Your task to perform on an android device: Go to network settings Image 0: 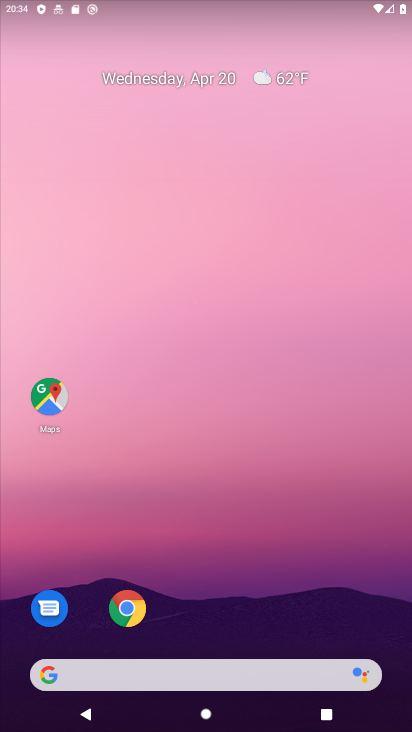
Step 0: click (295, 27)
Your task to perform on an android device: Go to network settings Image 1: 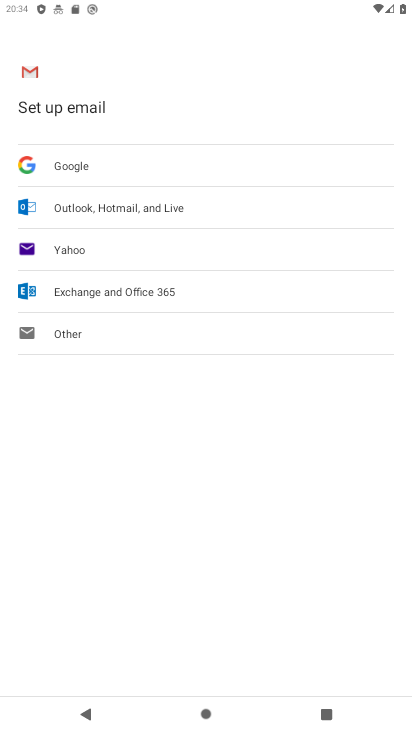
Step 1: press home button
Your task to perform on an android device: Go to network settings Image 2: 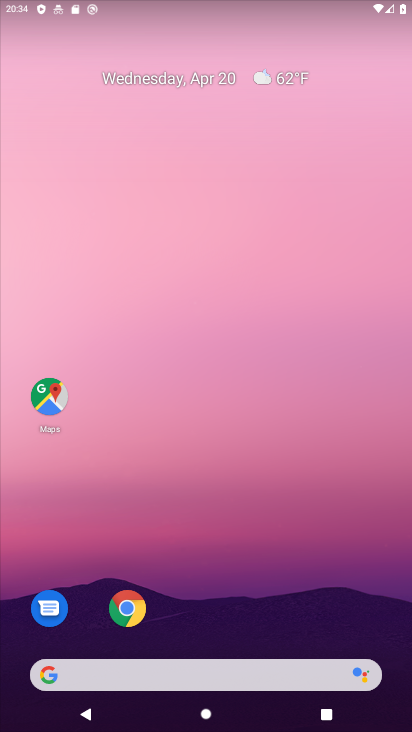
Step 2: drag from (231, 503) to (218, 7)
Your task to perform on an android device: Go to network settings Image 3: 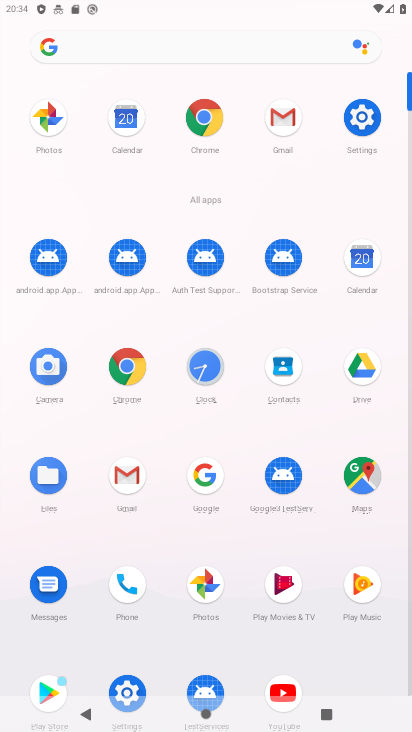
Step 3: click (371, 98)
Your task to perform on an android device: Go to network settings Image 4: 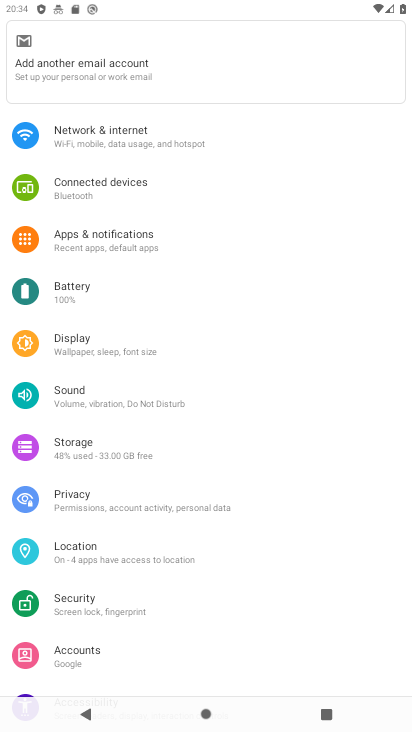
Step 4: click (178, 134)
Your task to perform on an android device: Go to network settings Image 5: 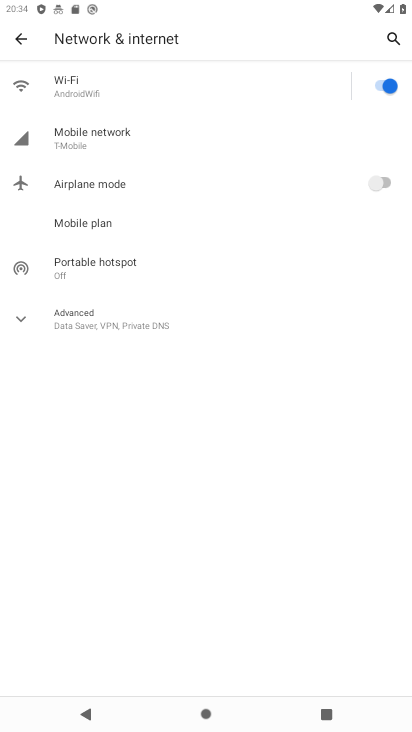
Step 5: task complete